Your task to perform on an android device: Open the Play Movies app and select the watchlist tab. Image 0: 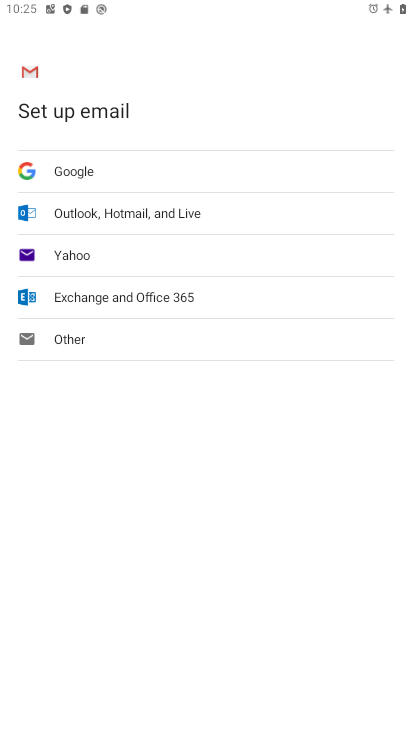
Step 0: press home button
Your task to perform on an android device: Open the Play Movies app and select the watchlist tab. Image 1: 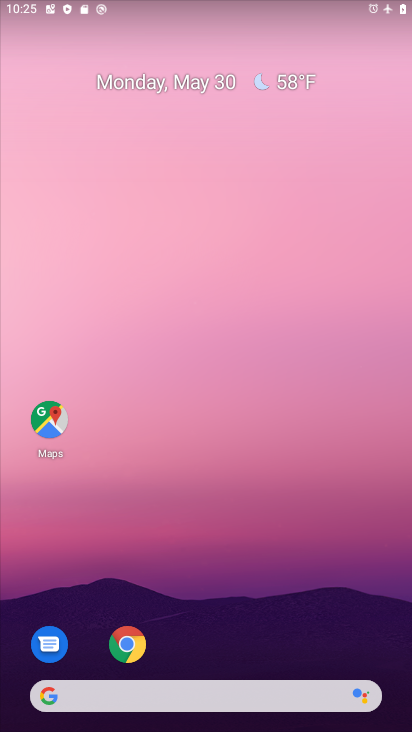
Step 1: drag from (364, 643) to (286, 111)
Your task to perform on an android device: Open the Play Movies app and select the watchlist tab. Image 2: 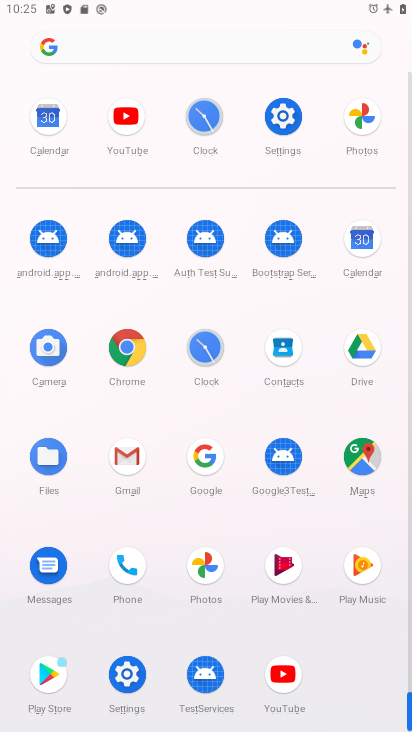
Step 2: click (285, 562)
Your task to perform on an android device: Open the Play Movies app and select the watchlist tab. Image 3: 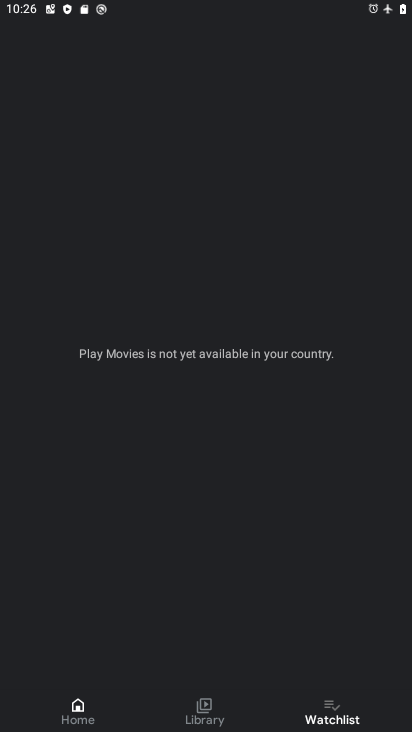
Step 3: task complete